Your task to perform on an android device: Open the stopwatch Image 0: 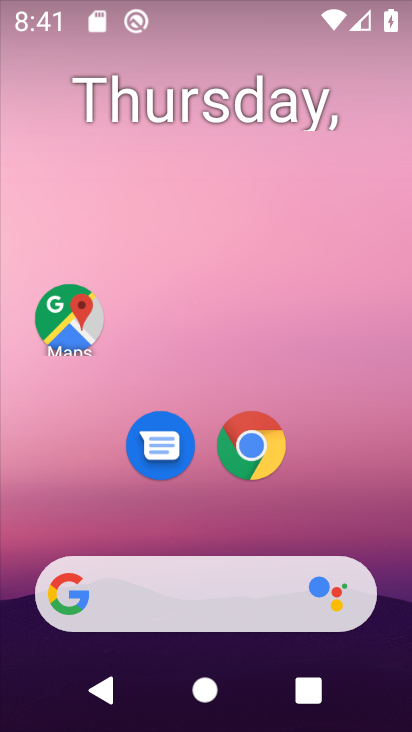
Step 0: drag from (306, 498) to (173, 161)
Your task to perform on an android device: Open the stopwatch Image 1: 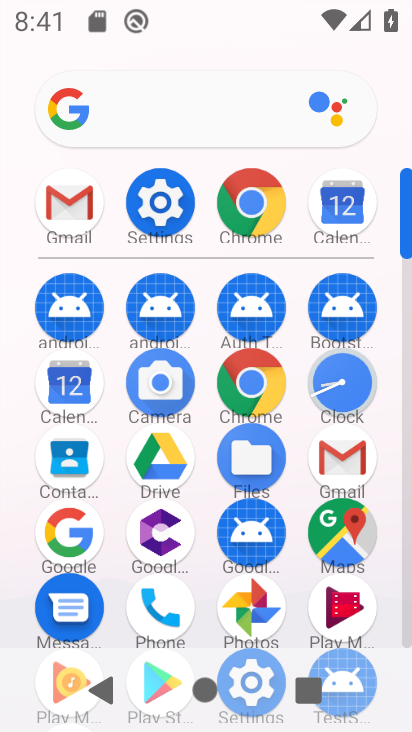
Step 1: click (340, 383)
Your task to perform on an android device: Open the stopwatch Image 2: 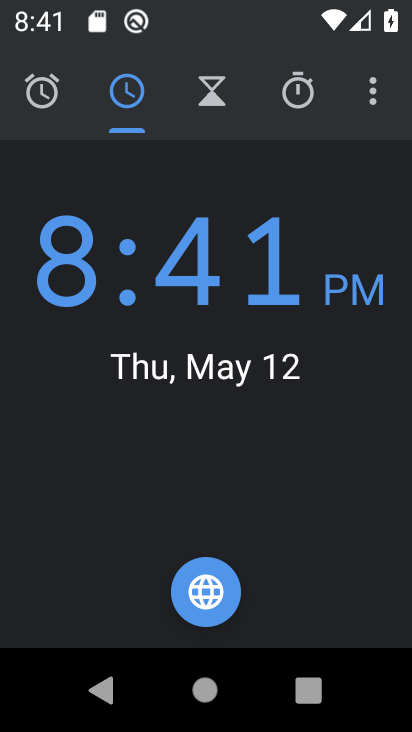
Step 2: click (303, 112)
Your task to perform on an android device: Open the stopwatch Image 3: 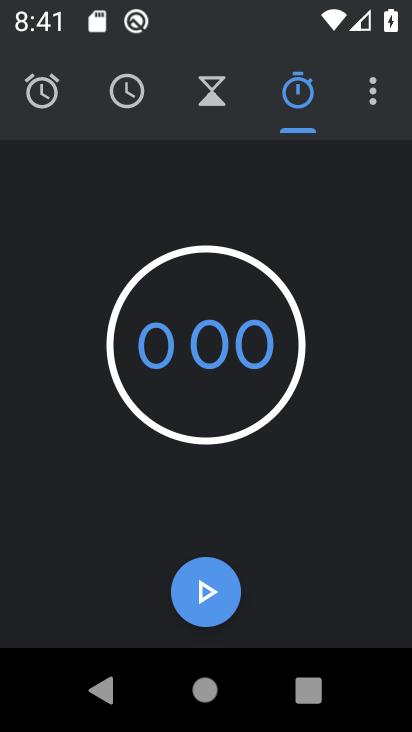
Step 3: task complete